Your task to perform on an android device: toggle airplane mode Image 0: 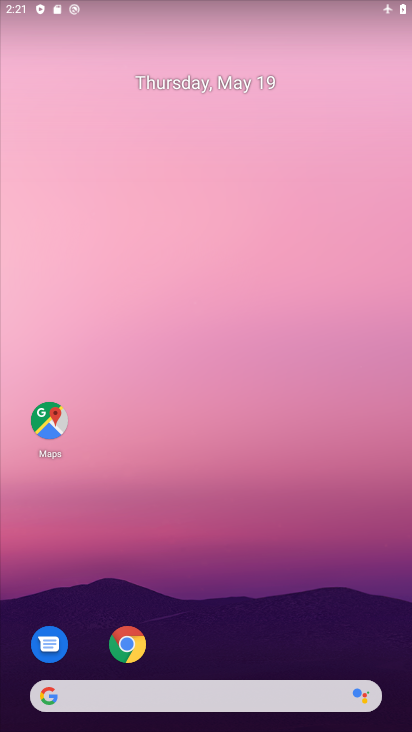
Step 0: drag from (284, 610) to (273, 220)
Your task to perform on an android device: toggle airplane mode Image 1: 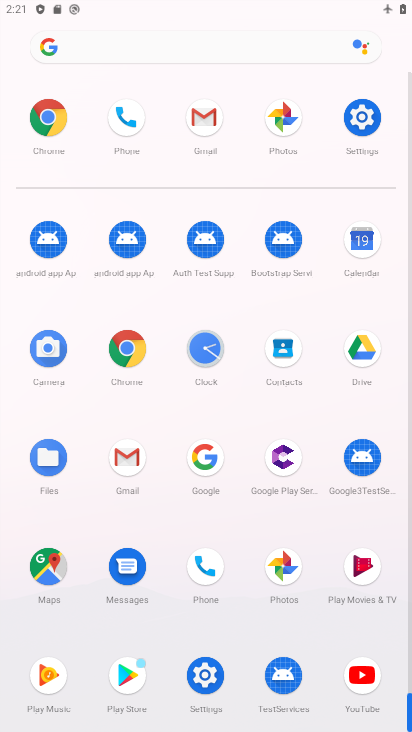
Step 1: click (365, 115)
Your task to perform on an android device: toggle airplane mode Image 2: 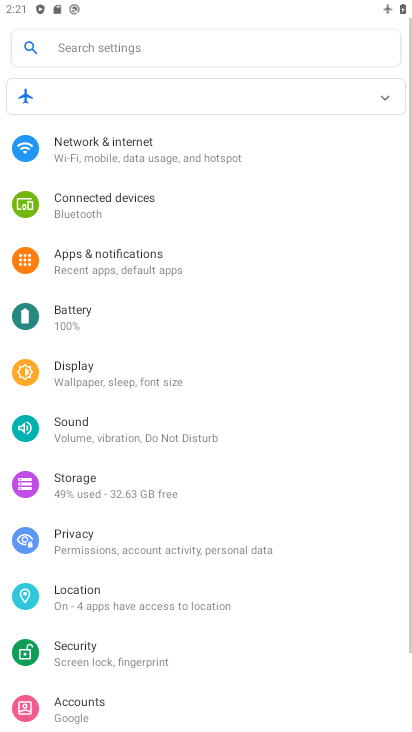
Step 2: click (142, 149)
Your task to perform on an android device: toggle airplane mode Image 3: 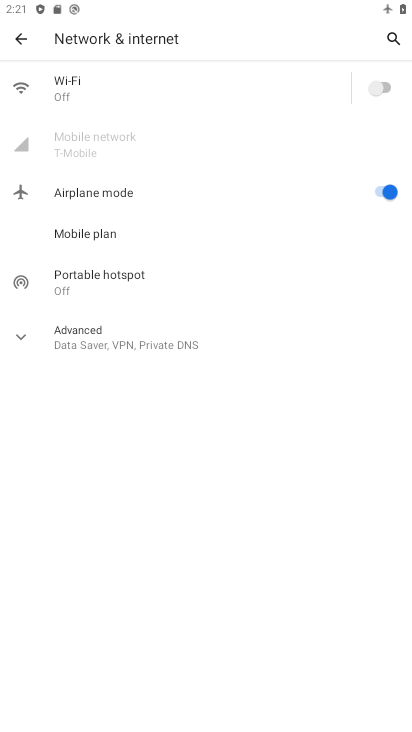
Step 3: click (388, 194)
Your task to perform on an android device: toggle airplane mode Image 4: 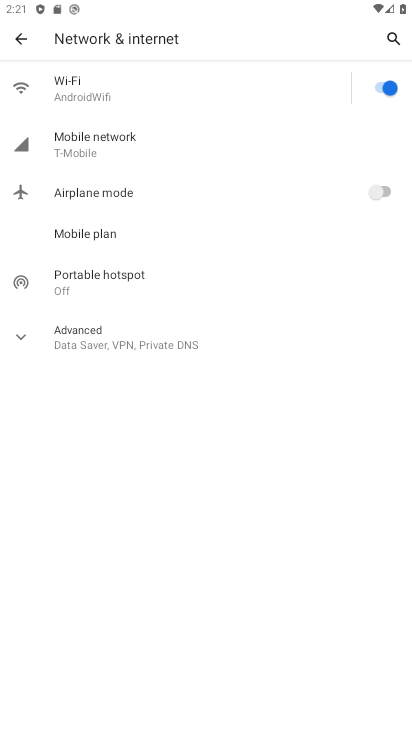
Step 4: task complete